Your task to perform on an android device: check android version Image 0: 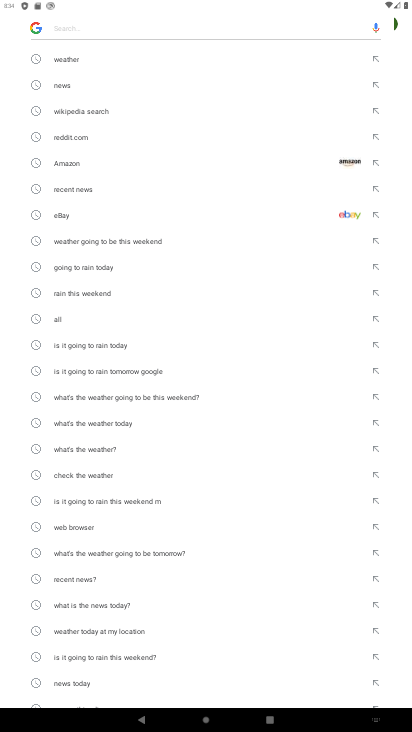
Step 0: press home button
Your task to perform on an android device: check android version Image 1: 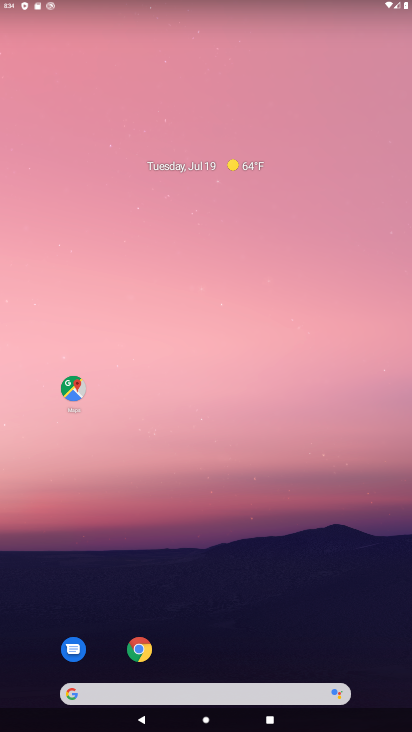
Step 1: drag from (192, 667) to (167, 99)
Your task to perform on an android device: check android version Image 2: 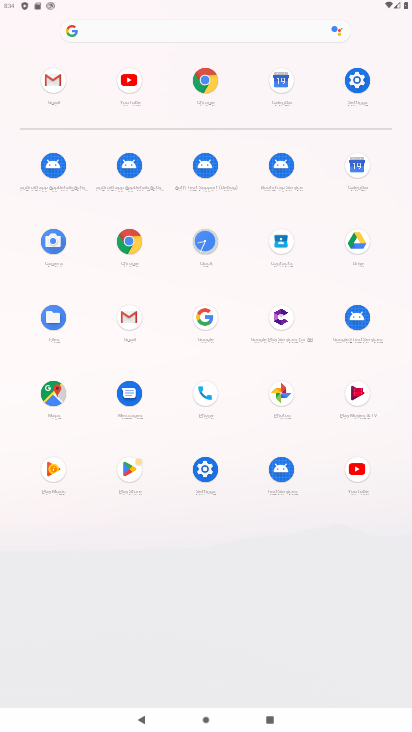
Step 2: click (353, 77)
Your task to perform on an android device: check android version Image 3: 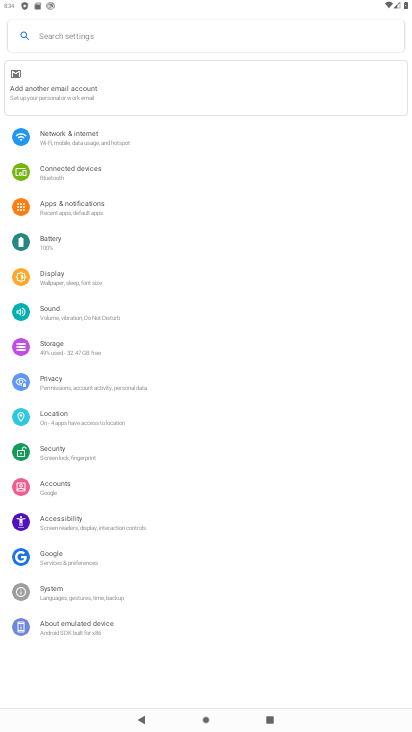
Step 3: click (118, 634)
Your task to perform on an android device: check android version Image 4: 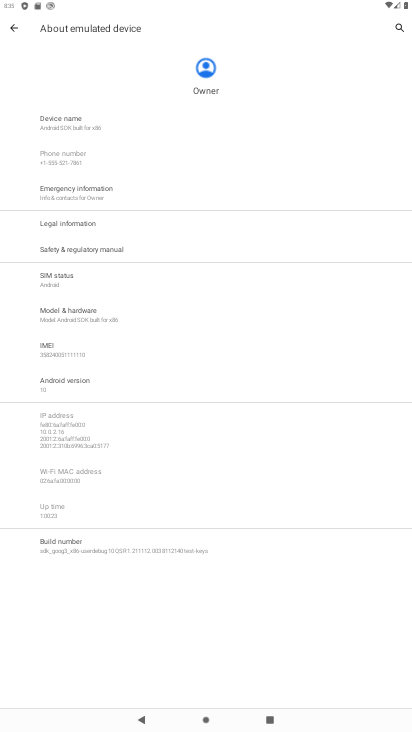
Step 4: click (78, 382)
Your task to perform on an android device: check android version Image 5: 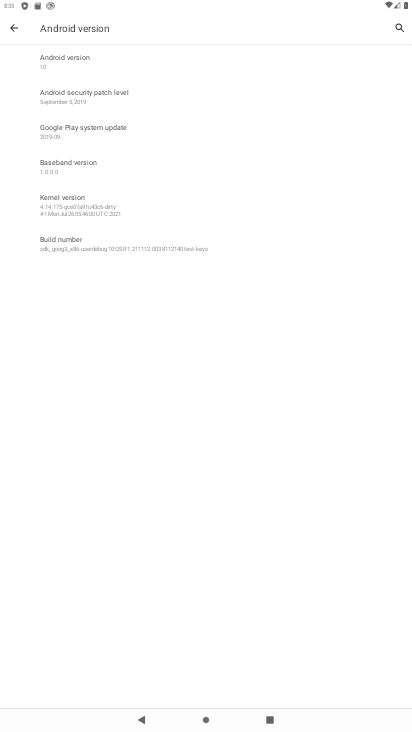
Step 5: click (48, 61)
Your task to perform on an android device: check android version Image 6: 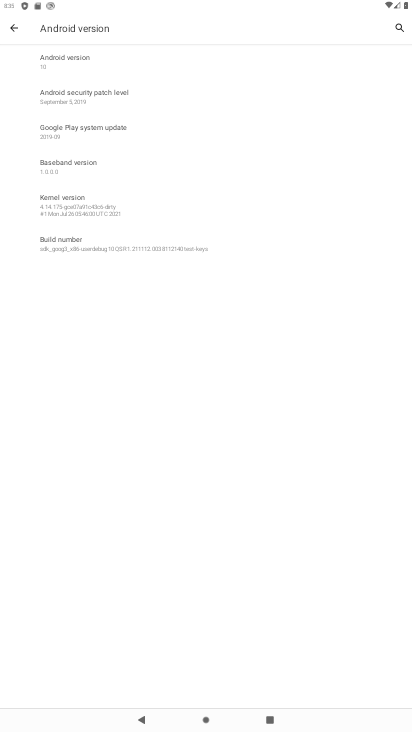
Step 6: task complete